Your task to perform on an android device: Search for sushi restaurants on Maps Image 0: 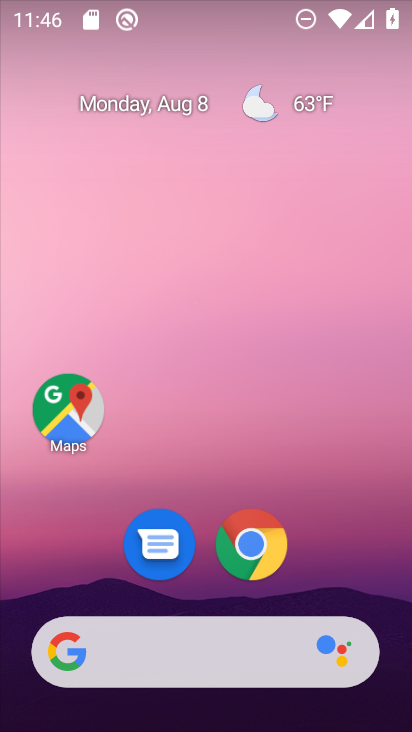
Step 0: click (67, 408)
Your task to perform on an android device: Search for sushi restaurants on Maps Image 1: 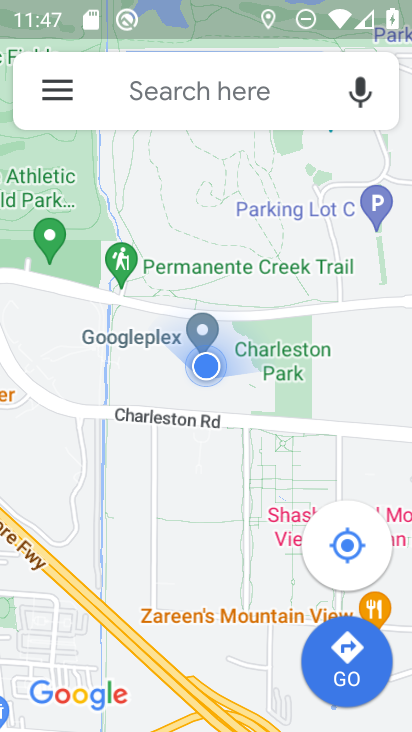
Step 1: click (233, 100)
Your task to perform on an android device: Search for sushi restaurants on Maps Image 2: 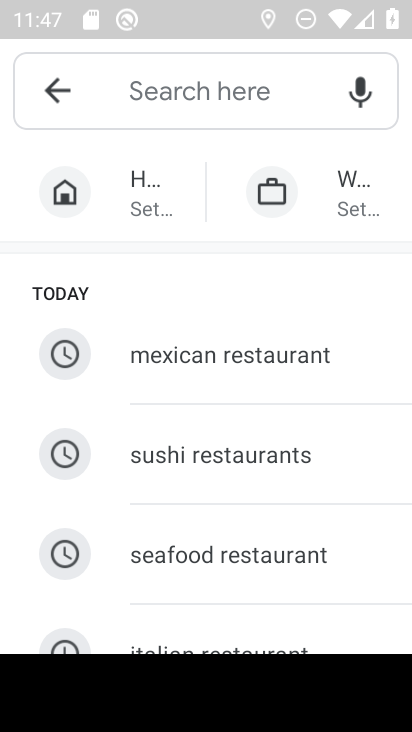
Step 2: click (244, 465)
Your task to perform on an android device: Search for sushi restaurants on Maps Image 3: 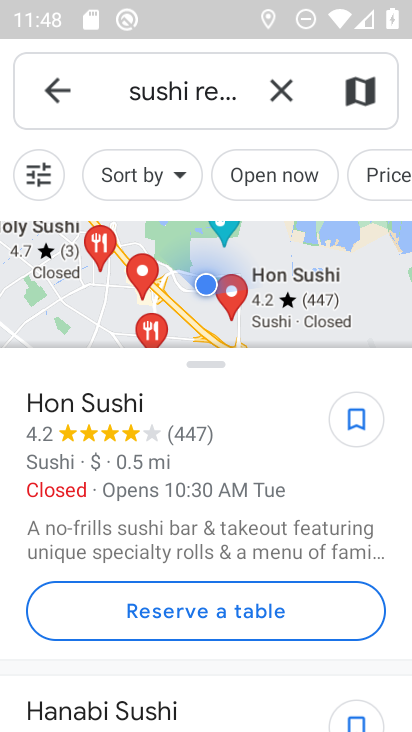
Step 3: task complete